Your task to perform on an android device: toggle location history Image 0: 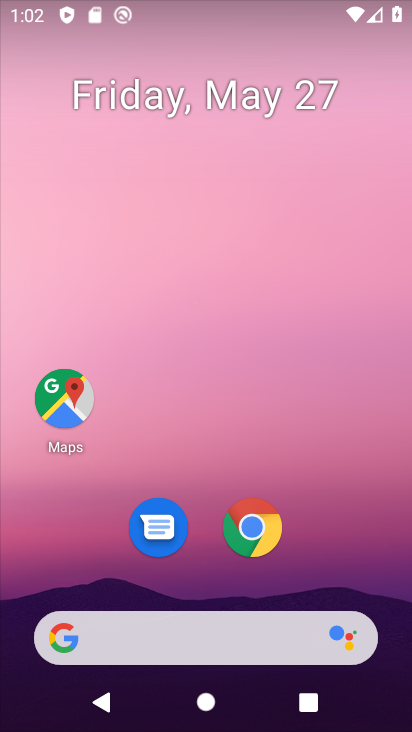
Step 0: drag from (384, 549) to (356, 138)
Your task to perform on an android device: toggle location history Image 1: 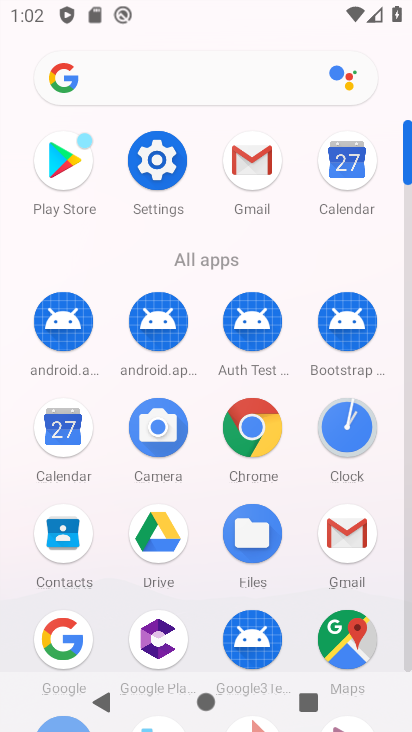
Step 1: click (176, 174)
Your task to perform on an android device: toggle location history Image 2: 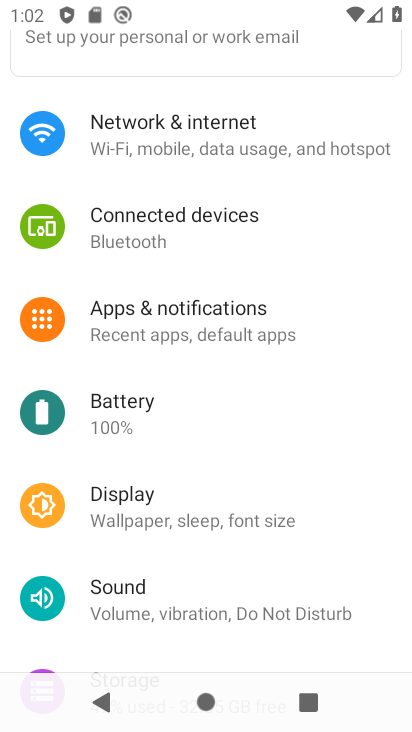
Step 2: drag from (258, 570) to (223, 247)
Your task to perform on an android device: toggle location history Image 3: 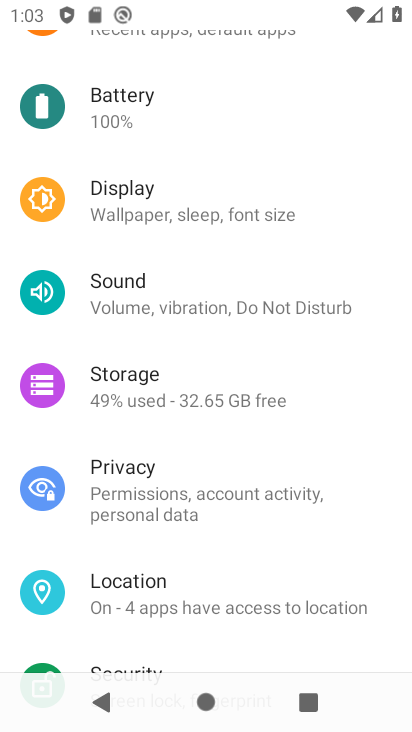
Step 3: click (175, 604)
Your task to perform on an android device: toggle location history Image 4: 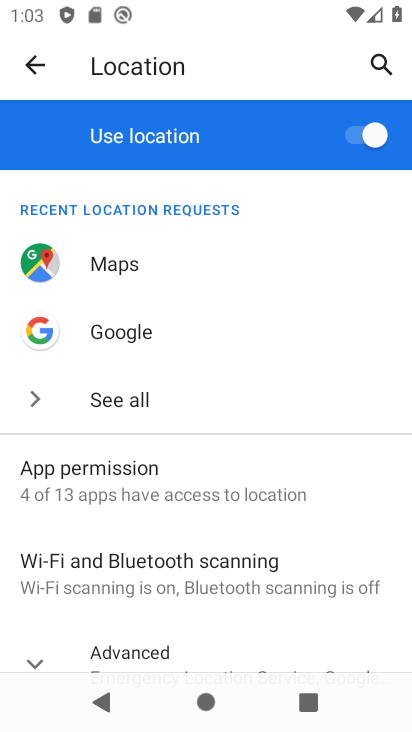
Step 4: drag from (196, 610) to (206, 486)
Your task to perform on an android device: toggle location history Image 5: 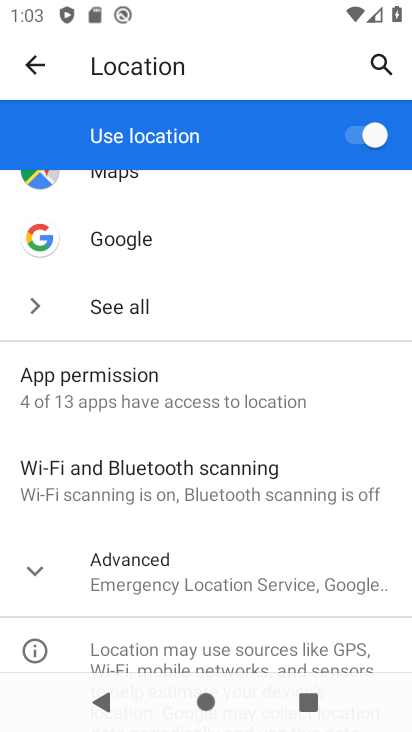
Step 5: click (182, 591)
Your task to perform on an android device: toggle location history Image 6: 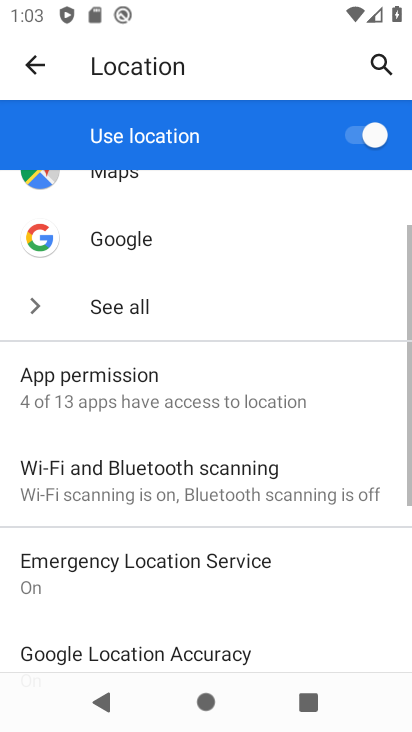
Step 6: drag from (182, 590) to (206, 402)
Your task to perform on an android device: toggle location history Image 7: 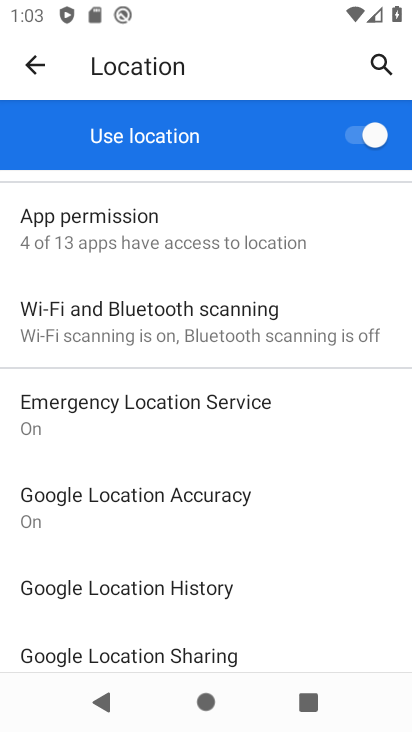
Step 7: click (181, 592)
Your task to perform on an android device: toggle location history Image 8: 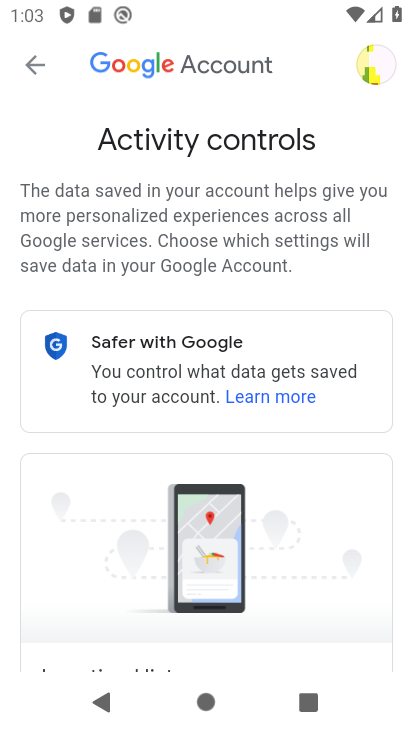
Step 8: drag from (236, 635) to (269, 438)
Your task to perform on an android device: toggle location history Image 9: 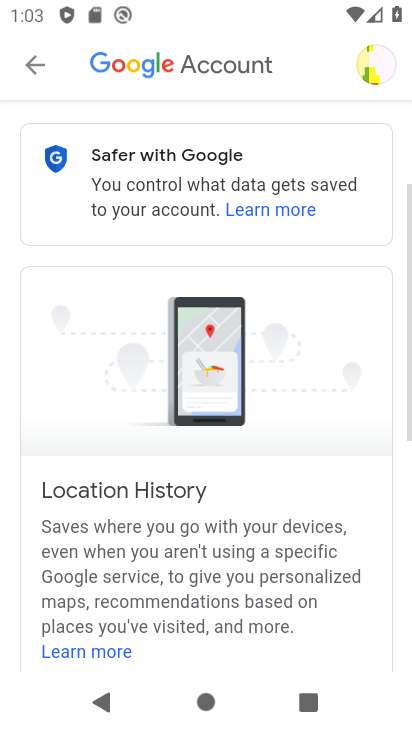
Step 9: drag from (266, 577) to (246, 400)
Your task to perform on an android device: toggle location history Image 10: 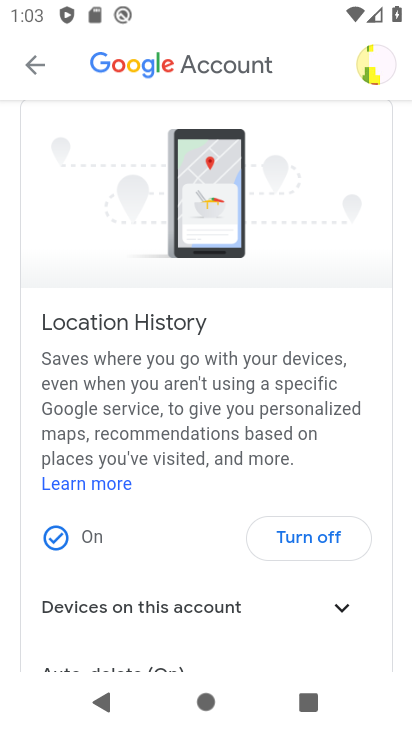
Step 10: click (275, 539)
Your task to perform on an android device: toggle location history Image 11: 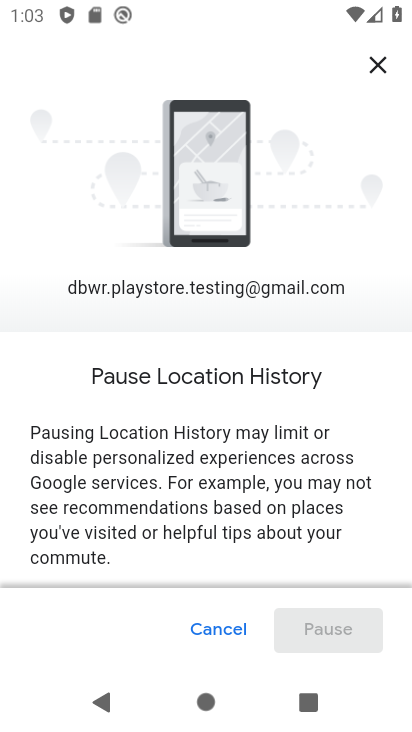
Step 11: drag from (273, 561) to (281, 45)
Your task to perform on an android device: toggle location history Image 12: 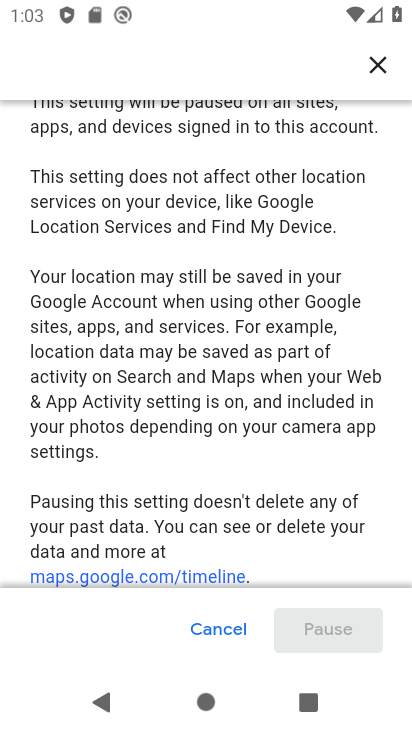
Step 12: drag from (276, 514) to (398, 162)
Your task to perform on an android device: toggle location history Image 13: 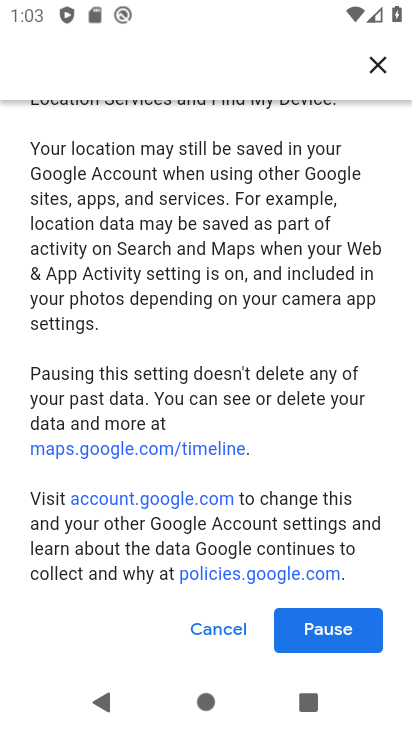
Step 13: click (360, 623)
Your task to perform on an android device: toggle location history Image 14: 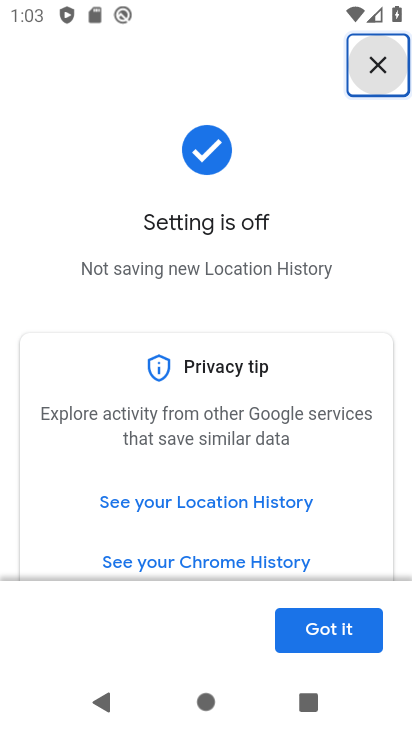
Step 14: click (326, 640)
Your task to perform on an android device: toggle location history Image 15: 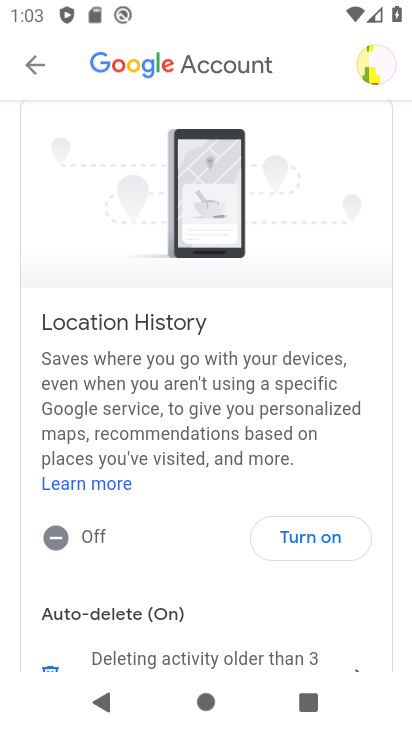
Step 15: task complete